Your task to perform on an android device: turn off picture-in-picture Image 0: 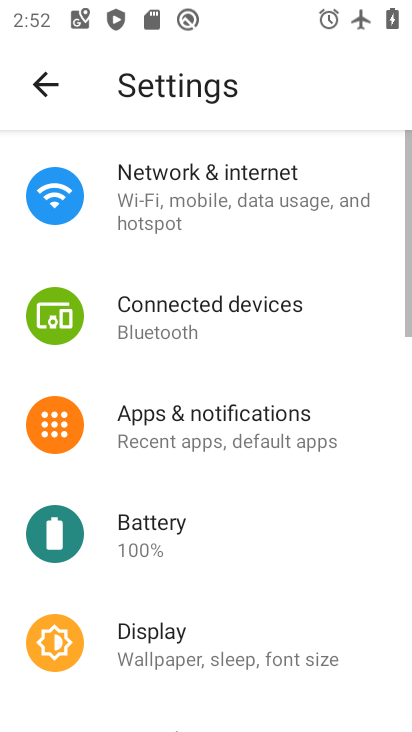
Step 0: press home button
Your task to perform on an android device: turn off picture-in-picture Image 1: 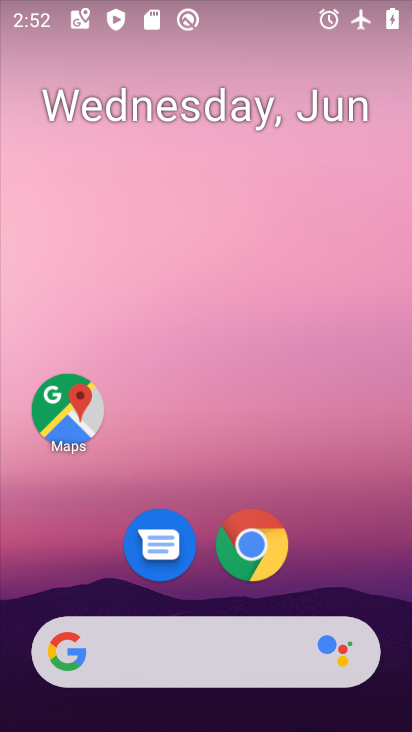
Step 1: click (256, 544)
Your task to perform on an android device: turn off picture-in-picture Image 2: 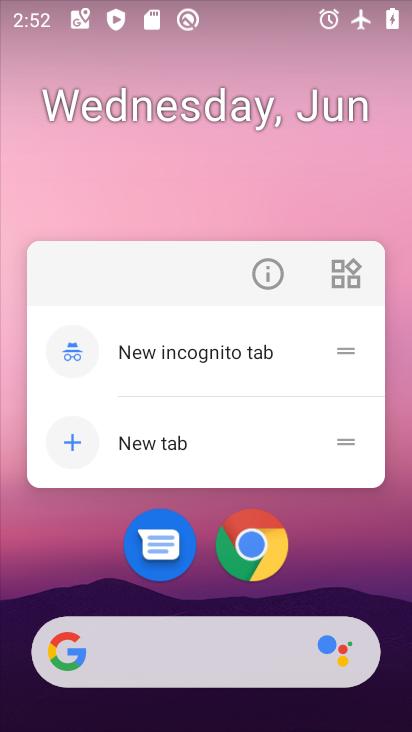
Step 2: click (275, 263)
Your task to perform on an android device: turn off picture-in-picture Image 3: 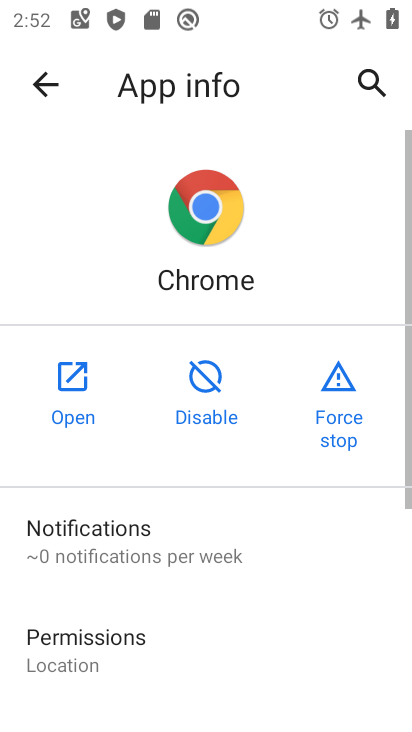
Step 3: drag from (193, 582) to (232, 134)
Your task to perform on an android device: turn off picture-in-picture Image 4: 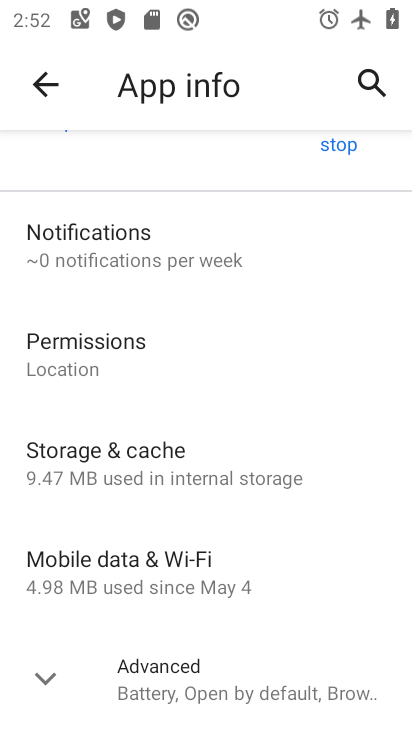
Step 4: click (191, 691)
Your task to perform on an android device: turn off picture-in-picture Image 5: 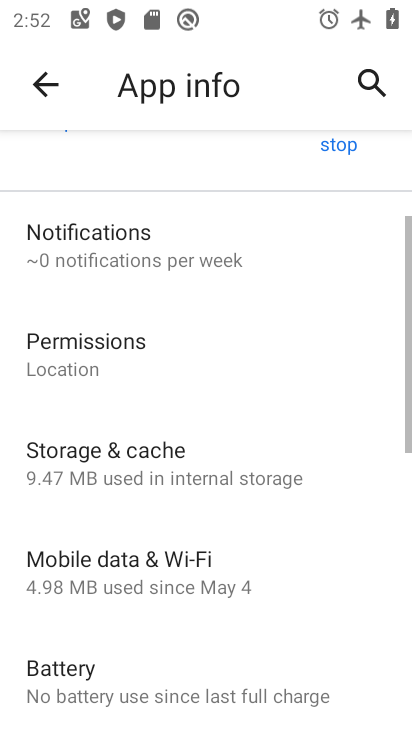
Step 5: drag from (288, 630) to (280, 216)
Your task to perform on an android device: turn off picture-in-picture Image 6: 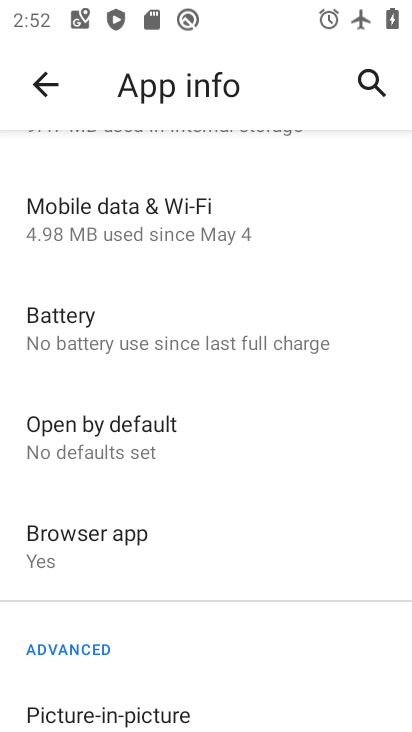
Step 6: click (161, 708)
Your task to perform on an android device: turn off picture-in-picture Image 7: 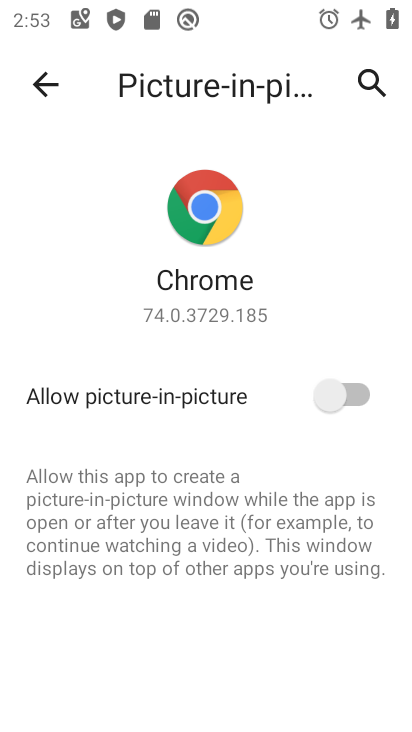
Step 7: task complete